Your task to perform on an android device: turn off smart reply in the gmail app Image 0: 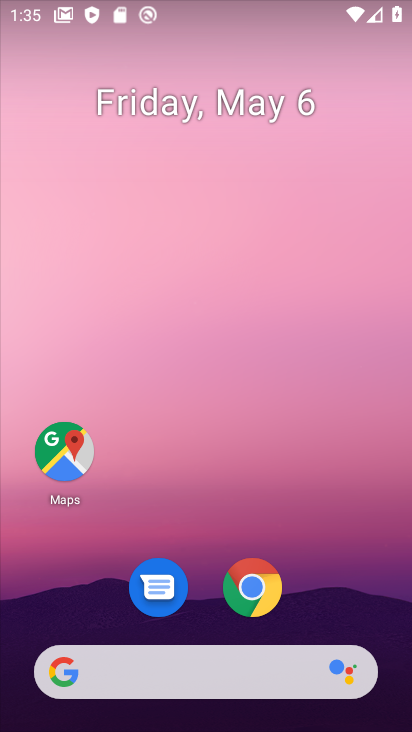
Step 0: drag from (350, 584) to (317, 0)
Your task to perform on an android device: turn off smart reply in the gmail app Image 1: 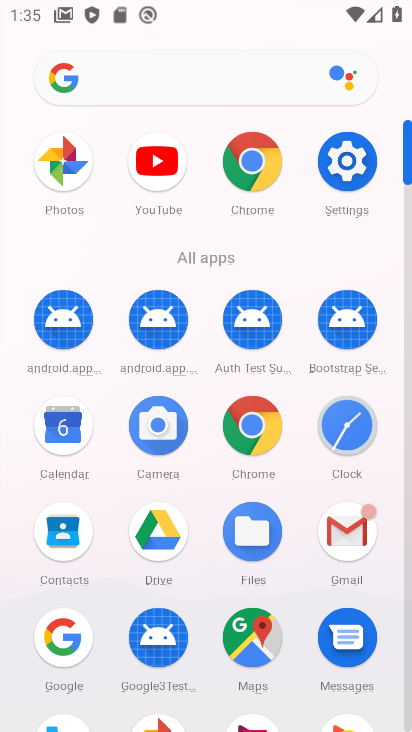
Step 1: click (351, 521)
Your task to perform on an android device: turn off smart reply in the gmail app Image 2: 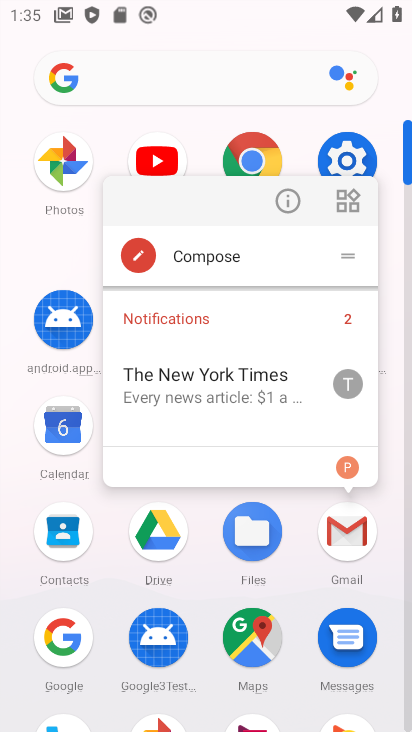
Step 2: click (354, 530)
Your task to perform on an android device: turn off smart reply in the gmail app Image 3: 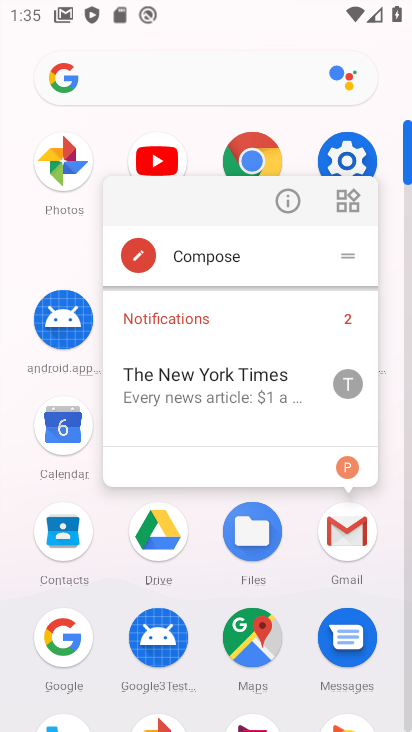
Step 3: click (354, 529)
Your task to perform on an android device: turn off smart reply in the gmail app Image 4: 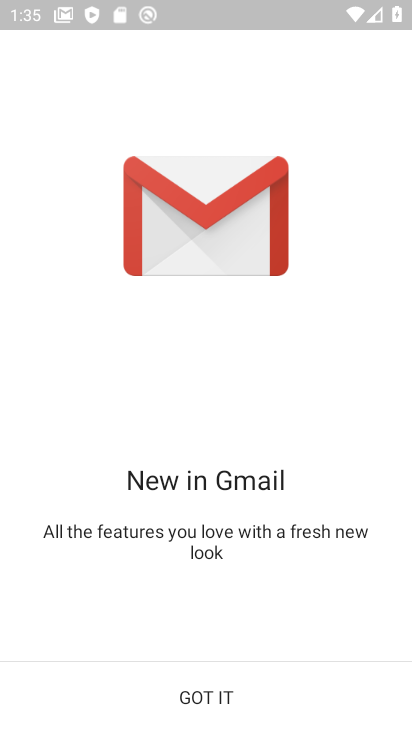
Step 4: click (220, 700)
Your task to perform on an android device: turn off smart reply in the gmail app Image 5: 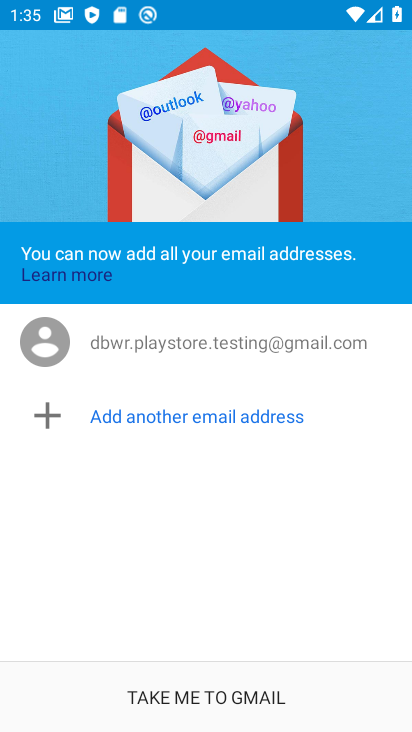
Step 5: click (220, 699)
Your task to perform on an android device: turn off smart reply in the gmail app Image 6: 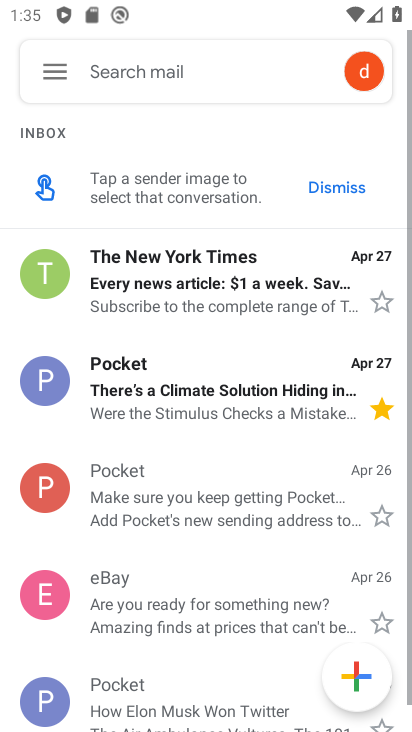
Step 6: click (44, 72)
Your task to perform on an android device: turn off smart reply in the gmail app Image 7: 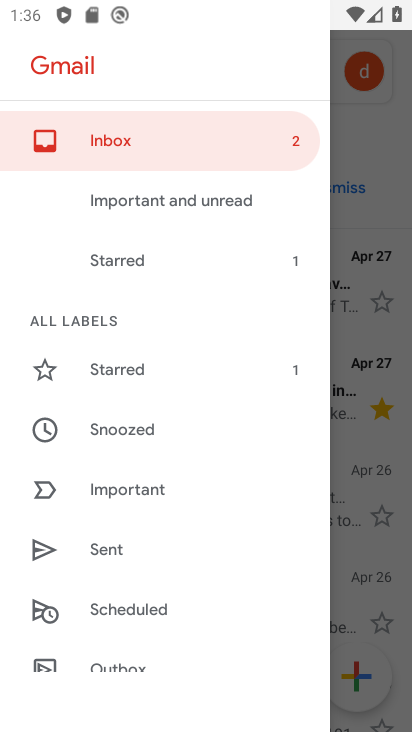
Step 7: drag from (126, 588) to (217, 121)
Your task to perform on an android device: turn off smart reply in the gmail app Image 8: 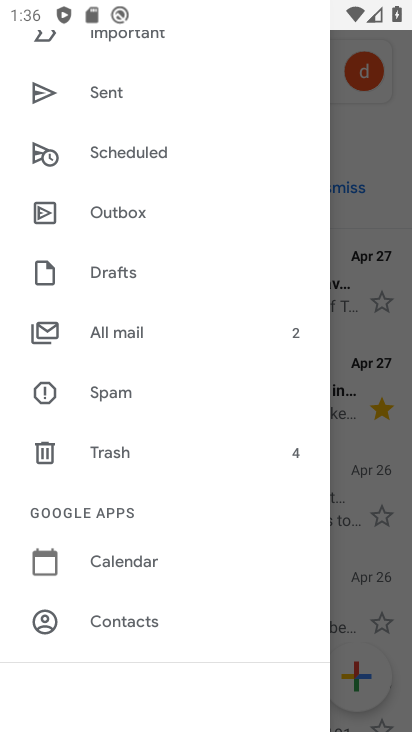
Step 8: drag from (182, 606) to (276, 145)
Your task to perform on an android device: turn off smart reply in the gmail app Image 9: 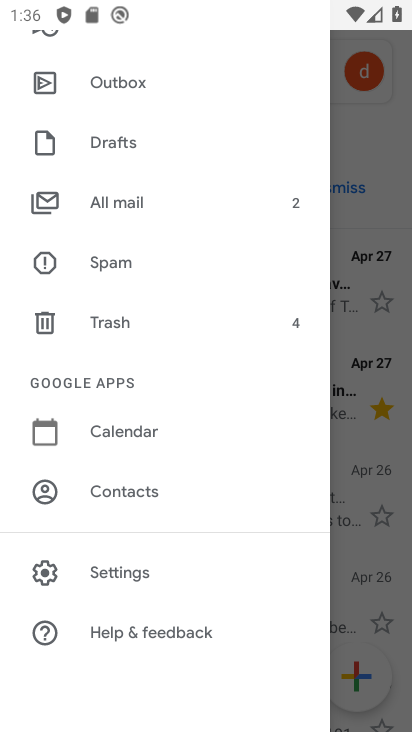
Step 9: click (94, 568)
Your task to perform on an android device: turn off smart reply in the gmail app Image 10: 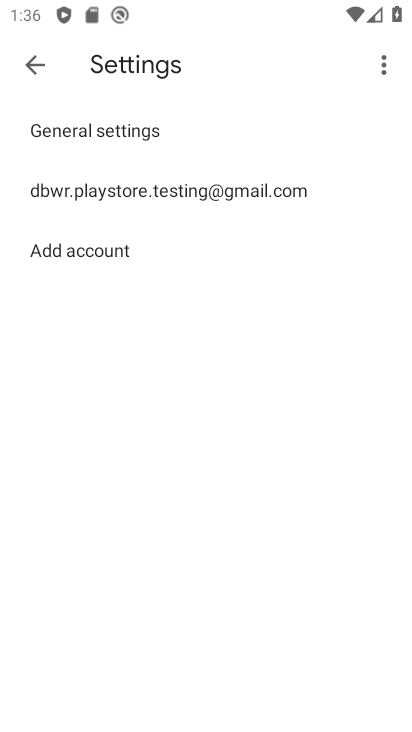
Step 10: click (66, 174)
Your task to perform on an android device: turn off smart reply in the gmail app Image 11: 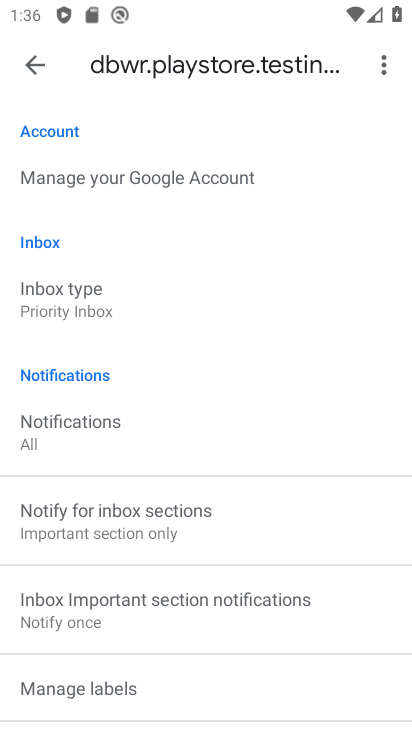
Step 11: drag from (194, 616) to (302, 215)
Your task to perform on an android device: turn off smart reply in the gmail app Image 12: 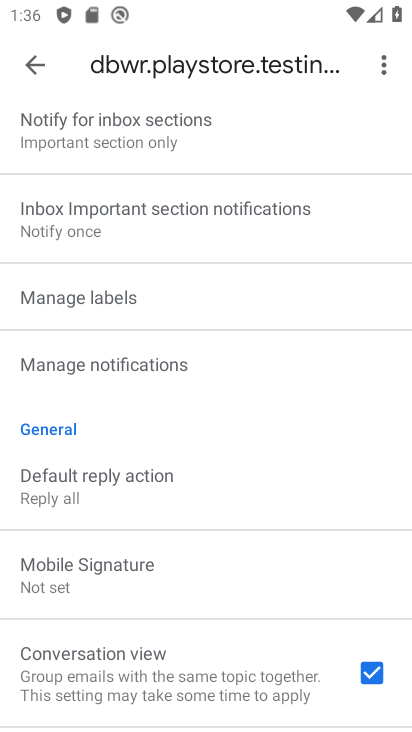
Step 12: drag from (214, 609) to (318, 233)
Your task to perform on an android device: turn off smart reply in the gmail app Image 13: 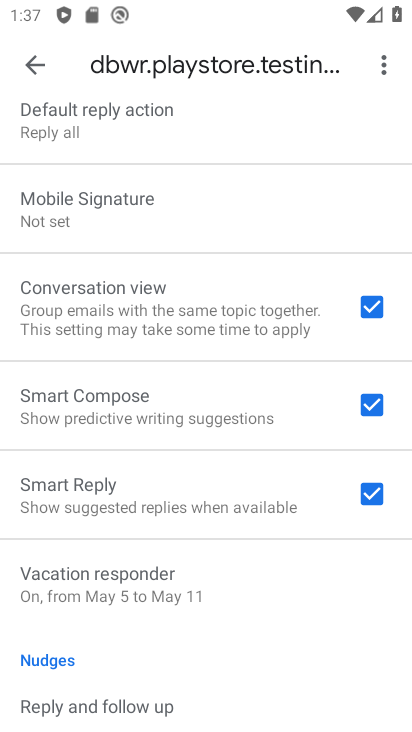
Step 13: click (375, 492)
Your task to perform on an android device: turn off smart reply in the gmail app Image 14: 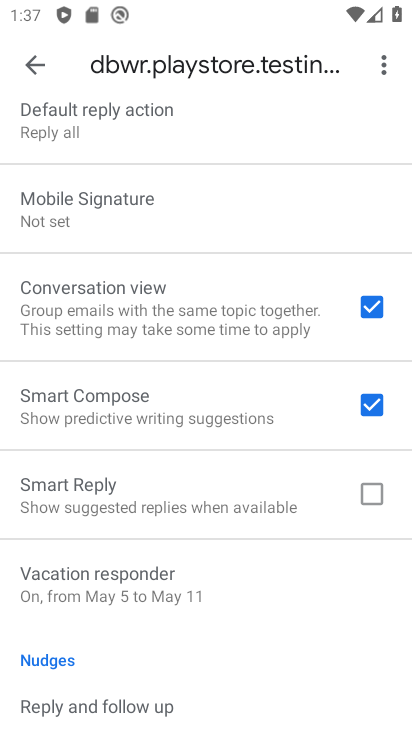
Step 14: task complete